Your task to perform on an android device: Go to settings Image 0: 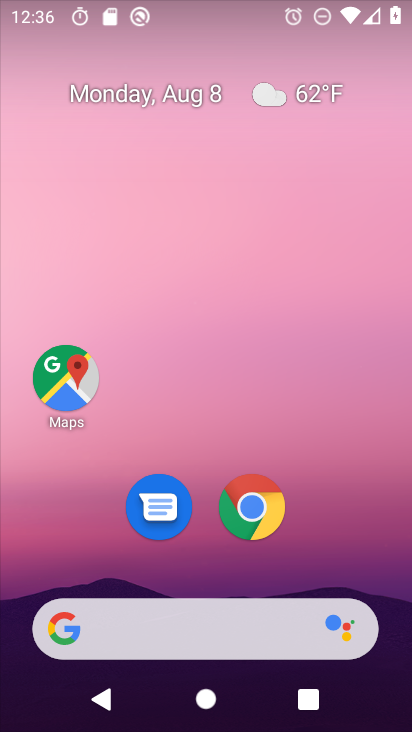
Step 0: drag from (372, 541) to (350, 15)
Your task to perform on an android device: Go to settings Image 1: 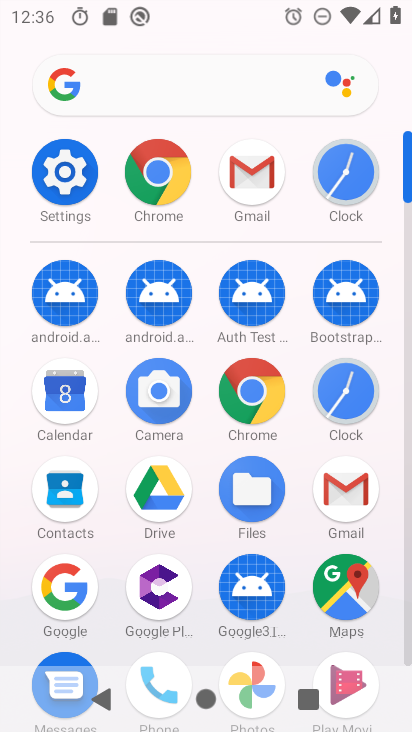
Step 1: click (68, 169)
Your task to perform on an android device: Go to settings Image 2: 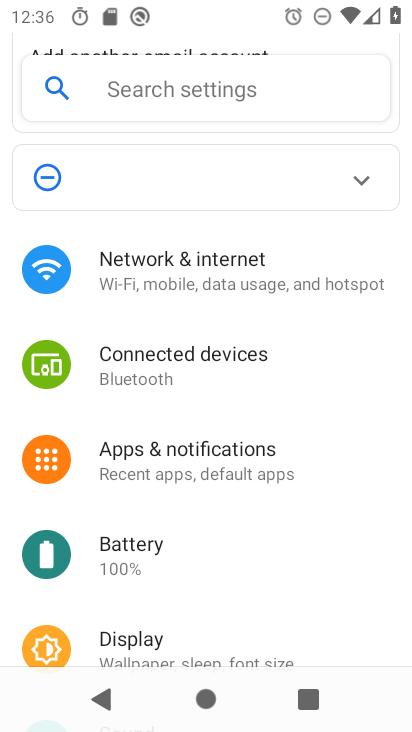
Step 2: task complete